Your task to perform on an android device: turn on notifications settings in the gmail app Image 0: 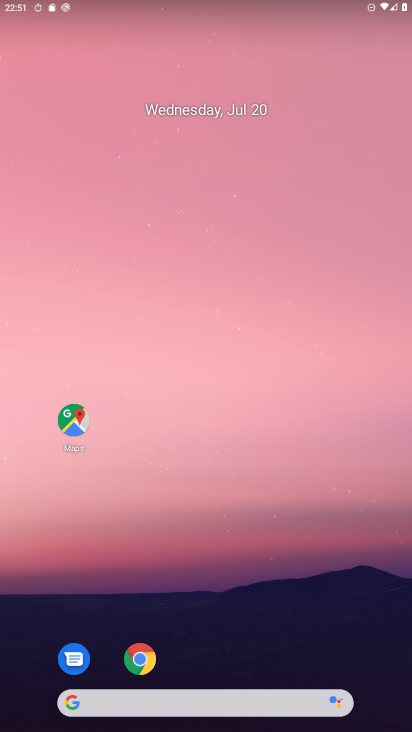
Step 0: drag from (343, 567) to (135, 125)
Your task to perform on an android device: turn on notifications settings in the gmail app Image 1: 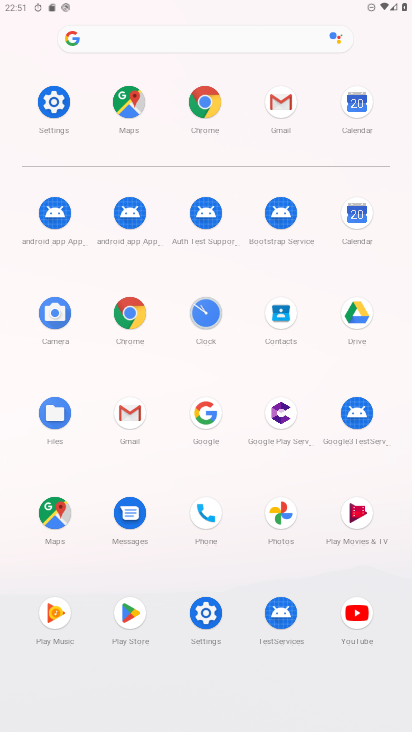
Step 1: click (278, 96)
Your task to perform on an android device: turn on notifications settings in the gmail app Image 2: 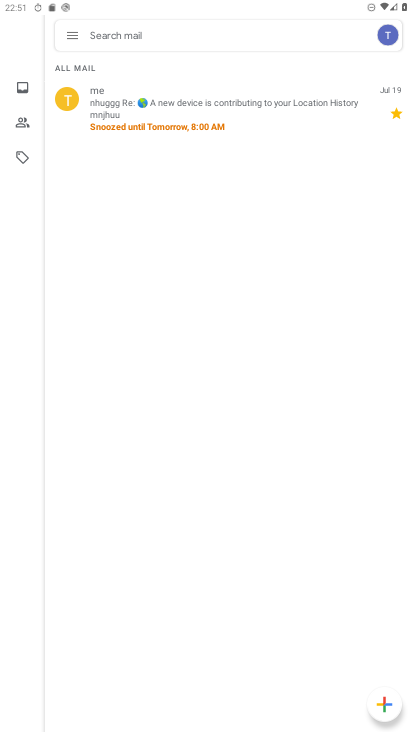
Step 2: click (70, 35)
Your task to perform on an android device: turn on notifications settings in the gmail app Image 3: 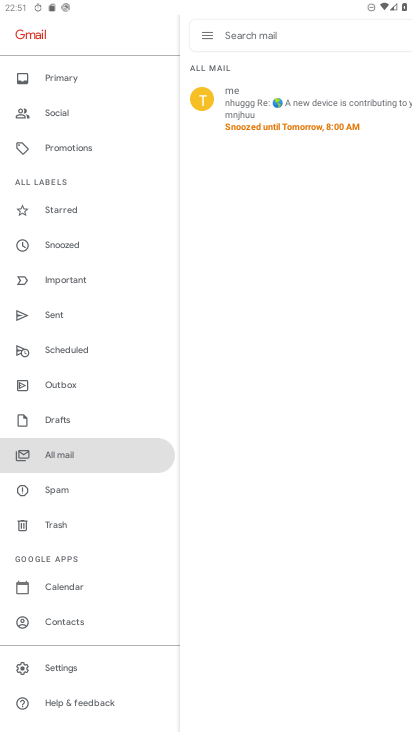
Step 3: click (66, 669)
Your task to perform on an android device: turn on notifications settings in the gmail app Image 4: 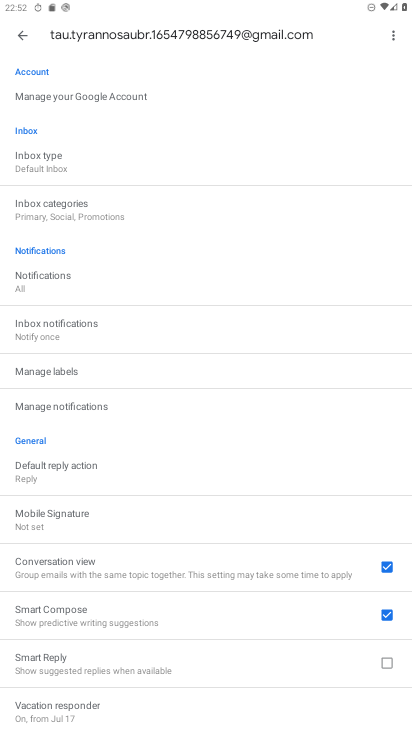
Step 4: click (73, 405)
Your task to perform on an android device: turn on notifications settings in the gmail app Image 5: 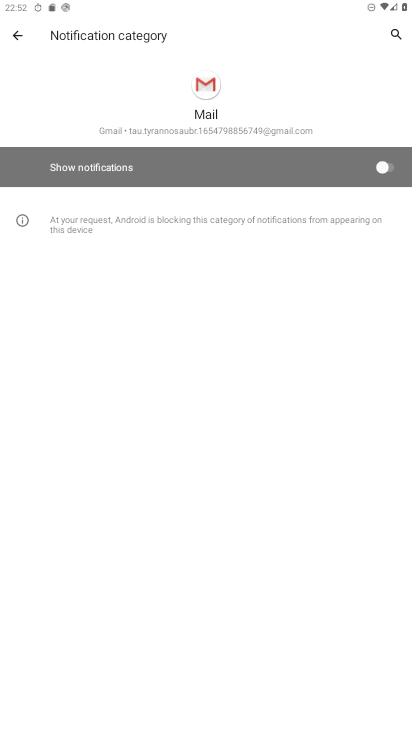
Step 5: click (363, 173)
Your task to perform on an android device: turn on notifications settings in the gmail app Image 6: 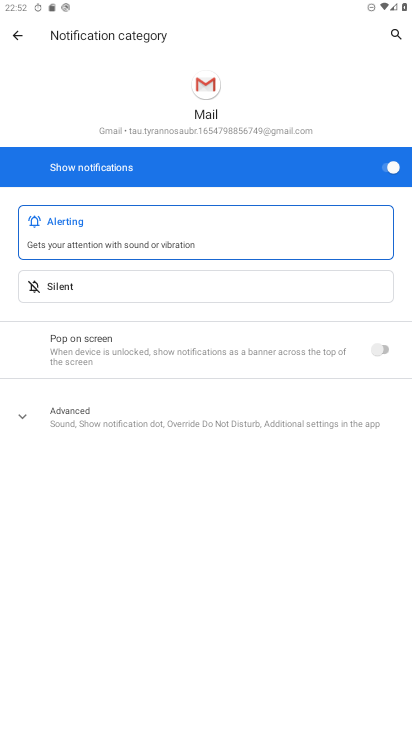
Step 6: task complete